Your task to perform on an android device: change the clock display to analog Image 0: 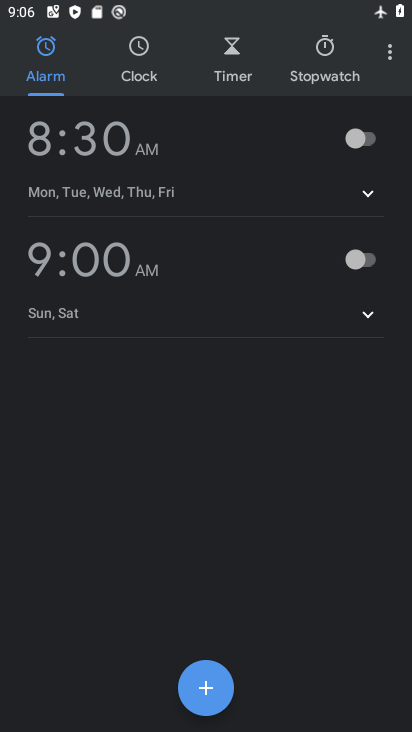
Step 0: click (393, 54)
Your task to perform on an android device: change the clock display to analog Image 1: 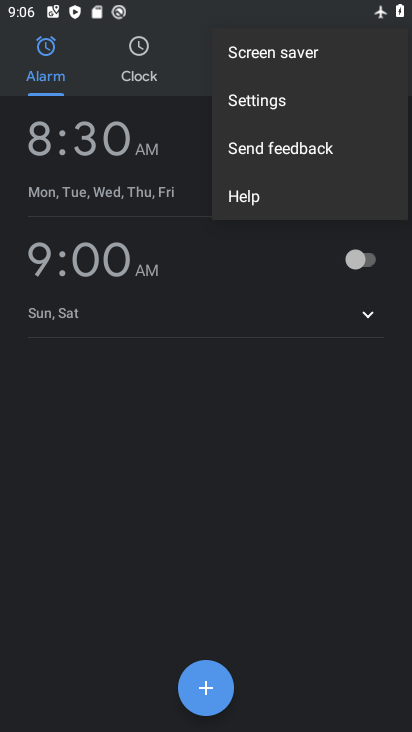
Step 1: click (268, 102)
Your task to perform on an android device: change the clock display to analog Image 2: 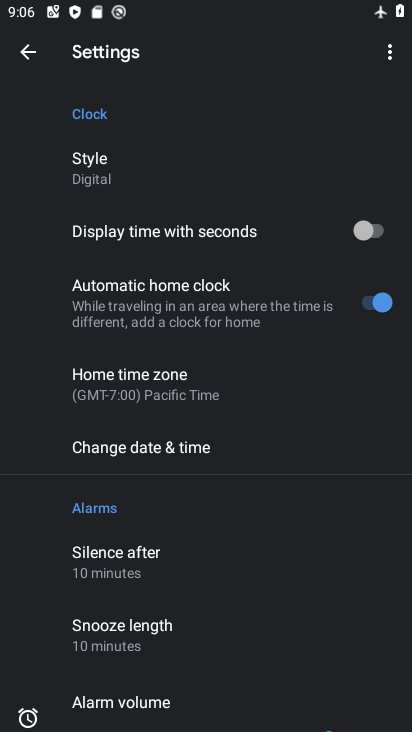
Step 2: click (93, 174)
Your task to perform on an android device: change the clock display to analog Image 3: 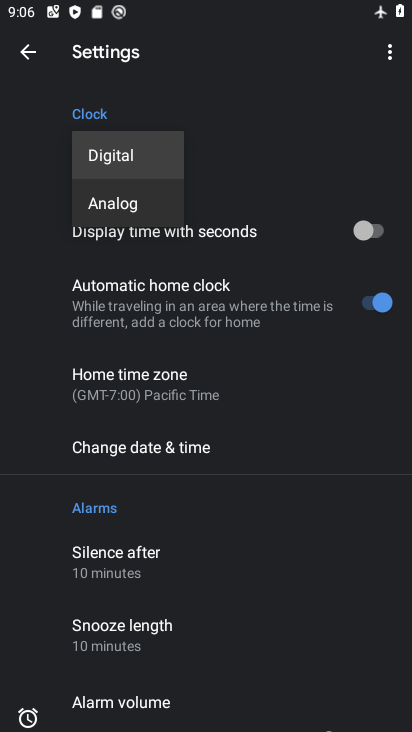
Step 3: click (118, 202)
Your task to perform on an android device: change the clock display to analog Image 4: 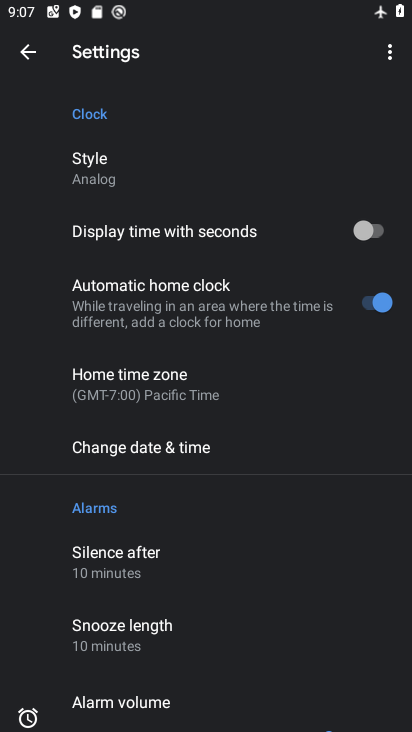
Step 4: task complete